Your task to perform on an android device: turn off location Image 0: 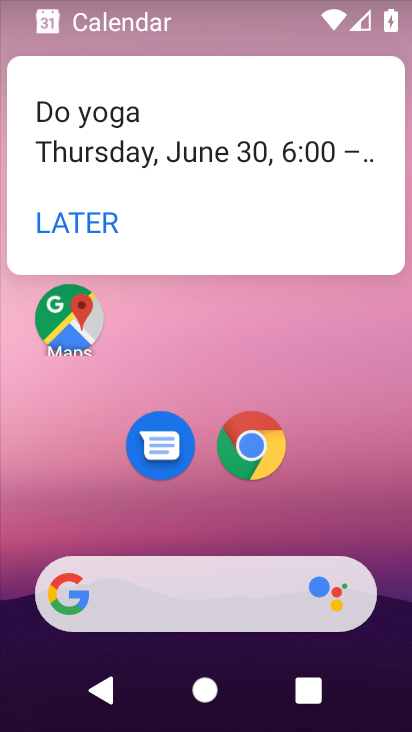
Step 0: press home button
Your task to perform on an android device: turn off location Image 1: 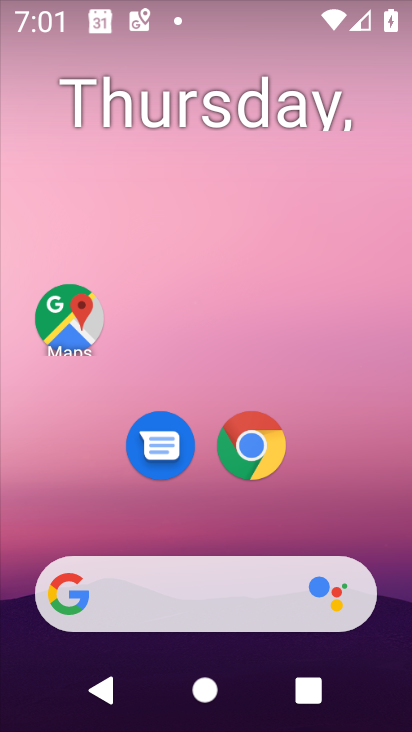
Step 1: click (84, 235)
Your task to perform on an android device: turn off location Image 2: 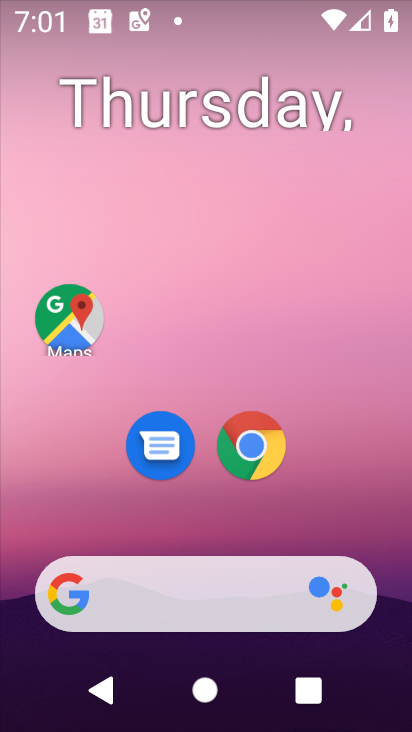
Step 2: drag from (379, 511) to (245, 59)
Your task to perform on an android device: turn off location Image 3: 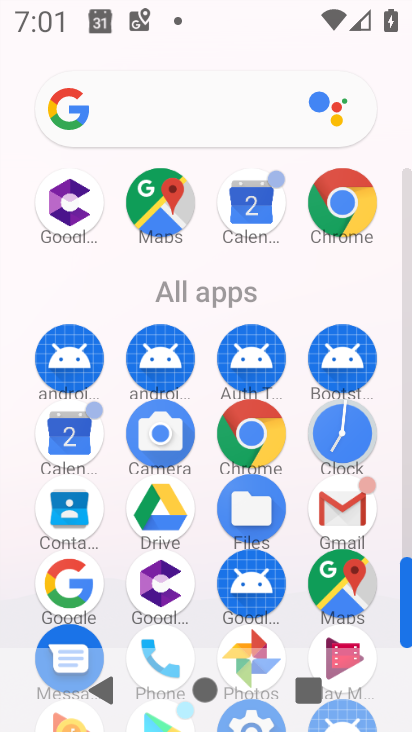
Step 3: drag from (203, 590) to (133, 179)
Your task to perform on an android device: turn off location Image 4: 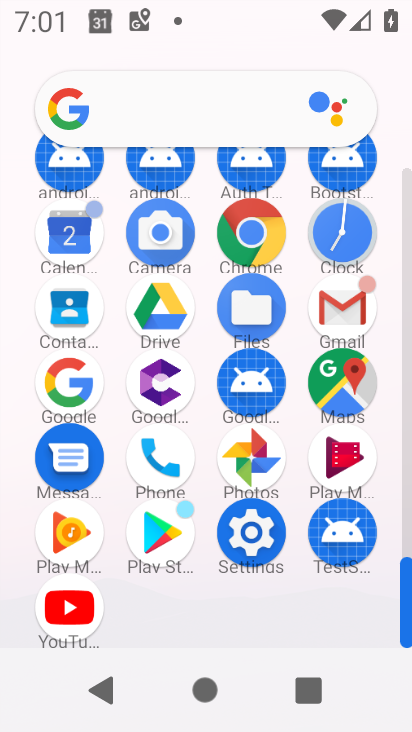
Step 4: click (267, 538)
Your task to perform on an android device: turn off location Image 5: 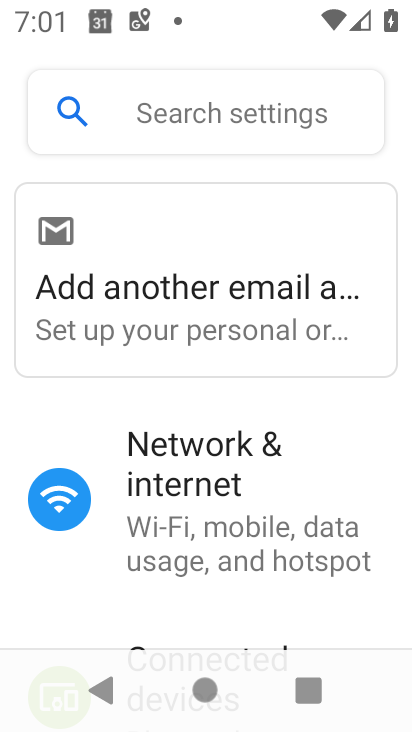
Step 5: drag from (207, 571) to (141, 55)
Your task to perform on an android device: turn off location Image 6: 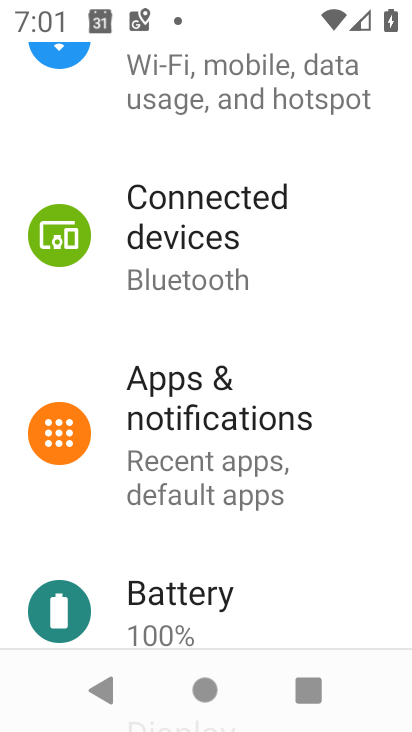
Step 6: drag from (197, 546) to (164, 112)
Your task to perform on an android device: turn off location Image 7: 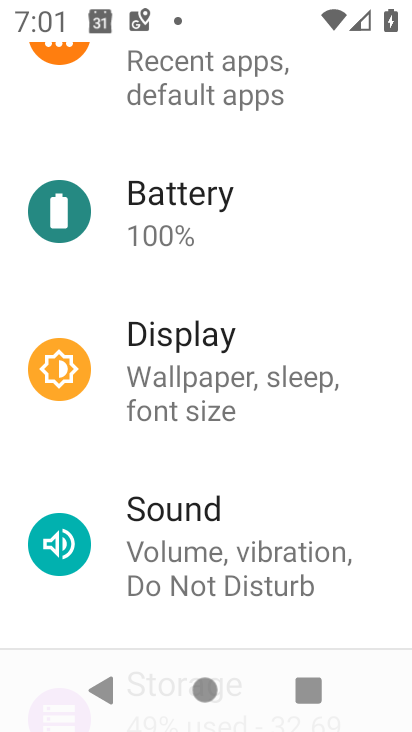
Step 7: drag from (171, 586) to (168, 125)
Your task to perform on an android device: turn off location Image 8: 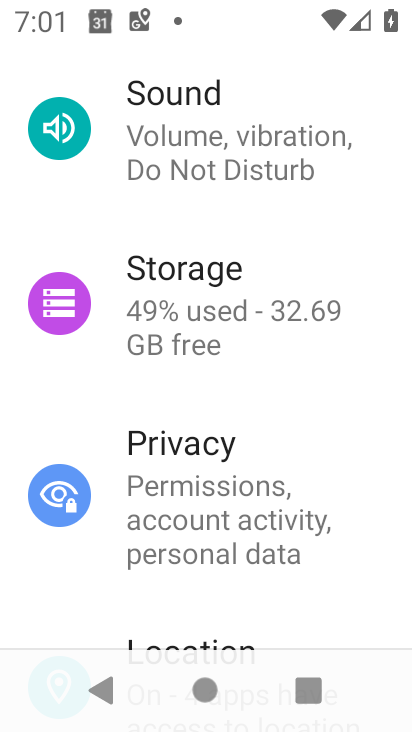
Step 8: drag from (169, 523) to (110, 88)
Your task to perform on an android device: turn off location Image 9: 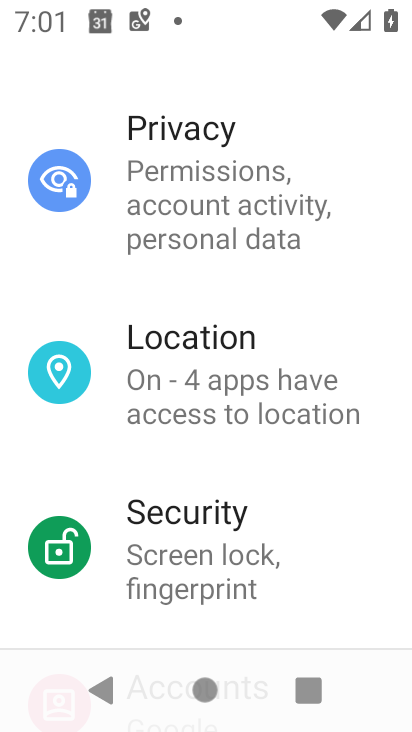
Step 9: click (120, 336)
Your task to perform on an android device: turn off location Image 10: 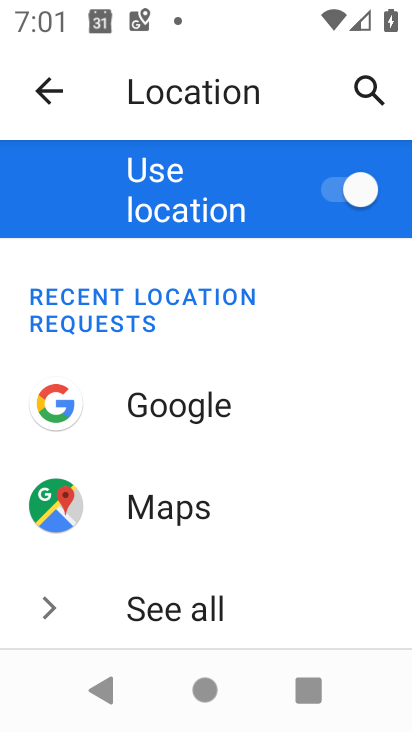
Step 10: click (327, 189)
Your task to perform on an android device: turn off location Image 11: 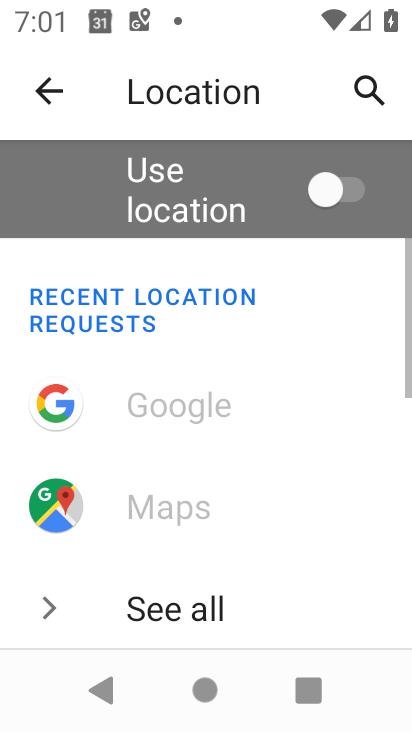
Step 11: task complete